Your task to perform on an android device: Open the stopwatch Image 0: 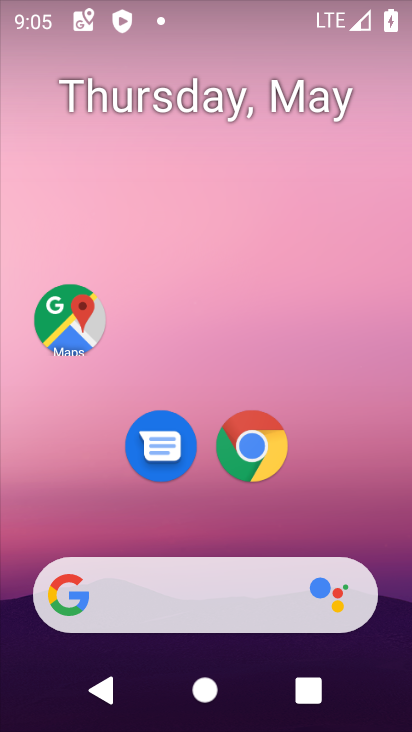
Step 0: drag from (402, 606) to (337, 50)
Your task to perform on an android device: Open the stopwatch Image 1: 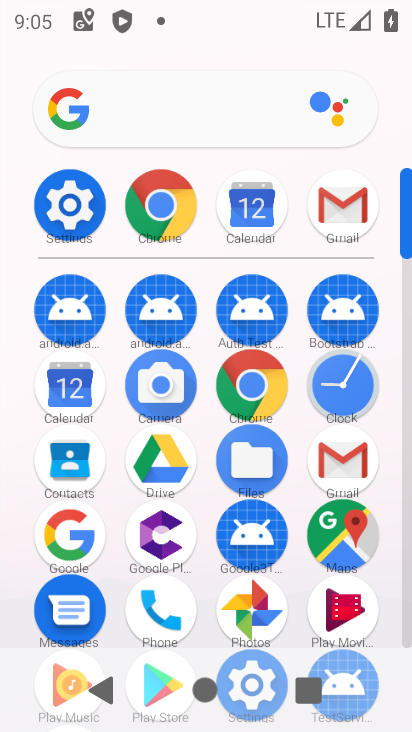
Step 1: click (405, 634)
Your task to perform on an android device: Open the stopwatch Image 2: 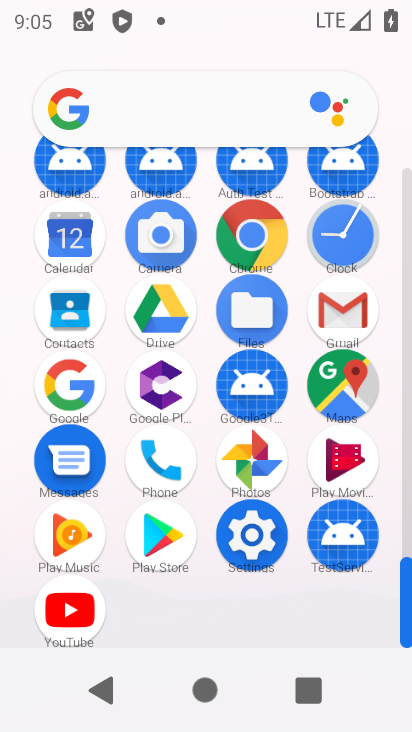
Step 2: click (341, 229)
Your task to perform on an android device: Open the stopwatch Image 3: 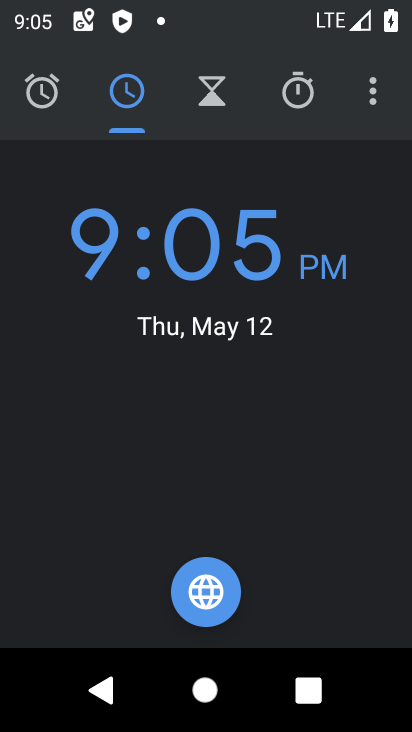
Step 3: click (300, 88)
Your task to perform on an android device: Open the stopwatch Image 4: 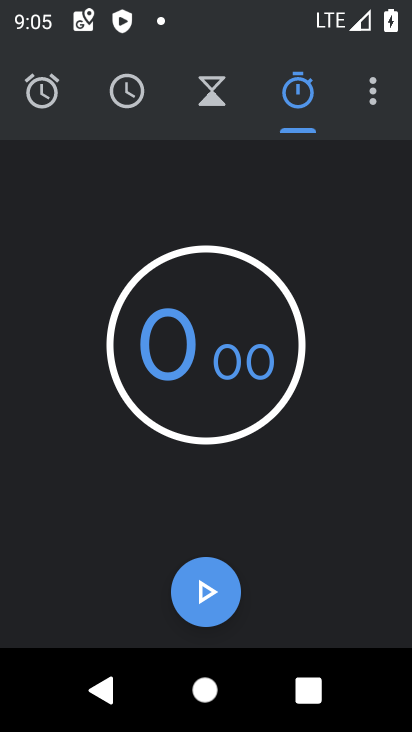
Step 4: task complete